Your task to perform on an android device: open app "Move to iOS" (install if not already installed) and go to login screen Image 0: 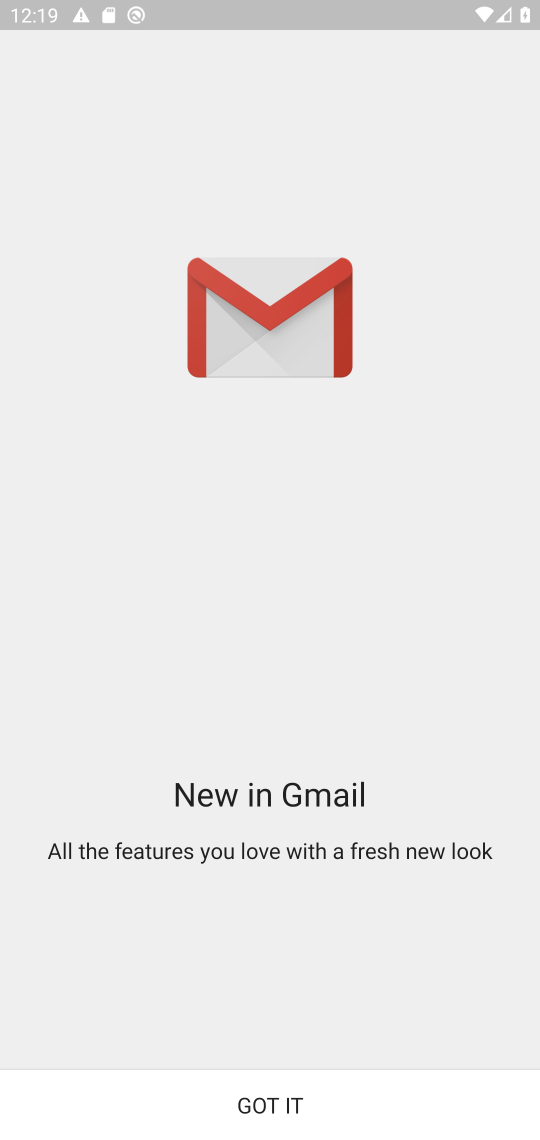
Step 0: press home button
Your task to perform on an android device: open app "Move to iOS" (install if not already installed) and go to login screen Image 1: 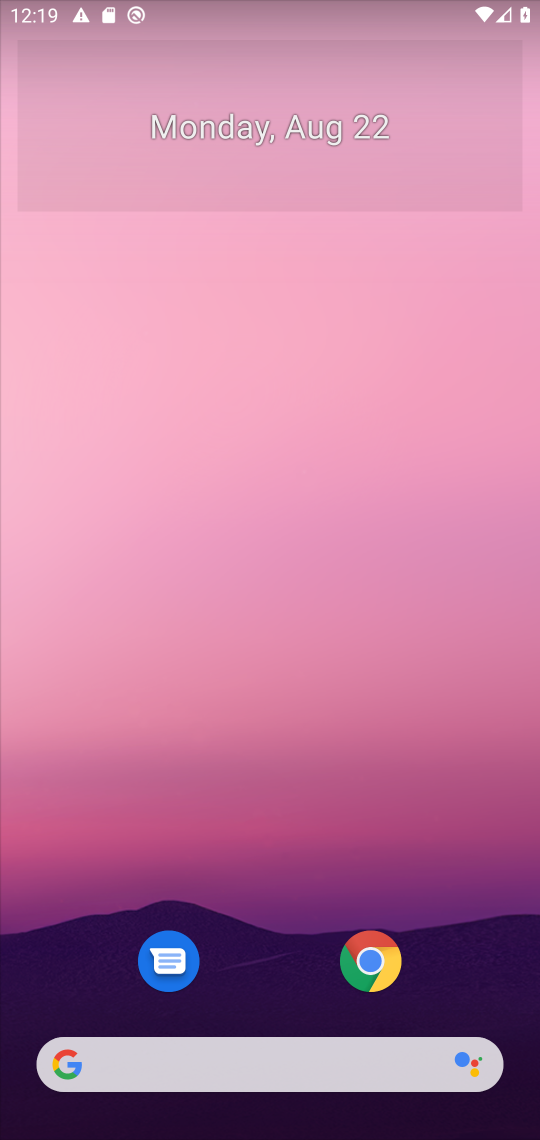
Step 1: drag from (496, 885) to (506, 96)
Your task to perform on an android device: open app "Move to iOS" (install if not already installed) and go to login screen Image 2: 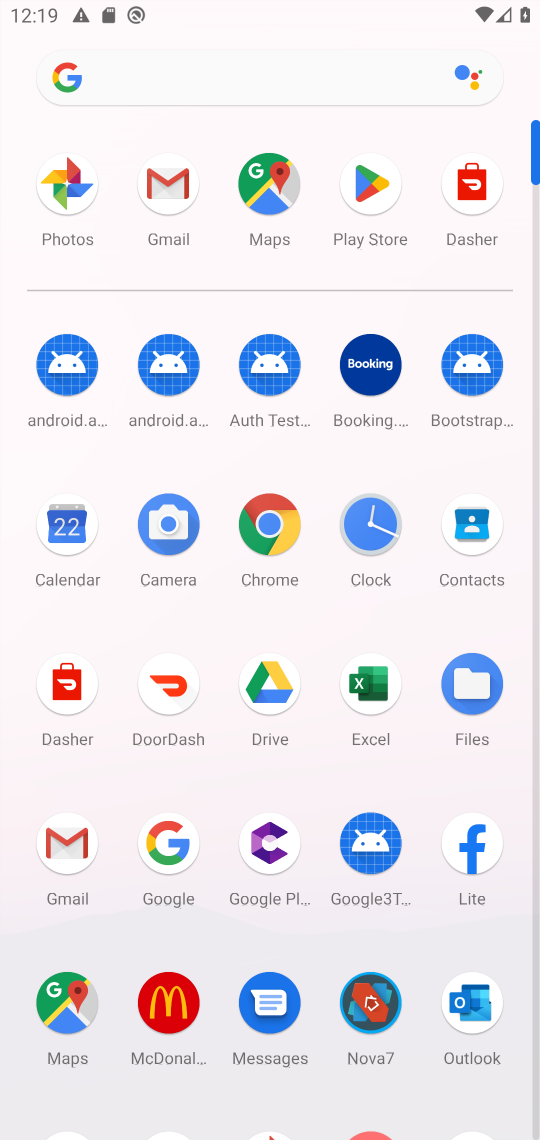
Step 2: click (369, 189)
Your task to perform on an android device: open app "Move to iOS" (install if not already installed) and go to login screen Image 3: 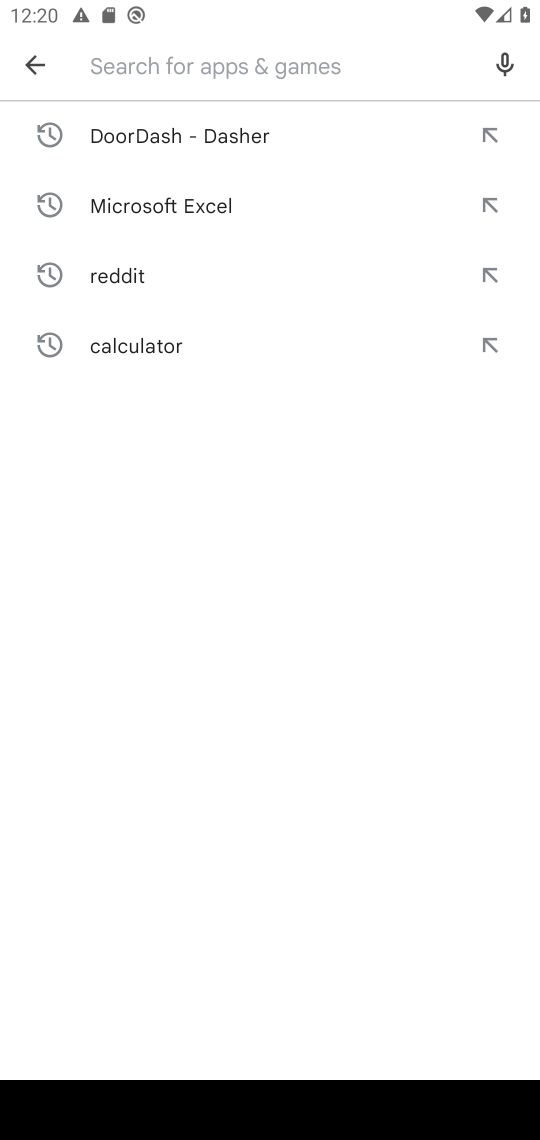
Step 3: type "Move to iOS"
Your task to perform on an android device: open app "Move to iOS" (install if not already installed) and go to login screen Image 4: 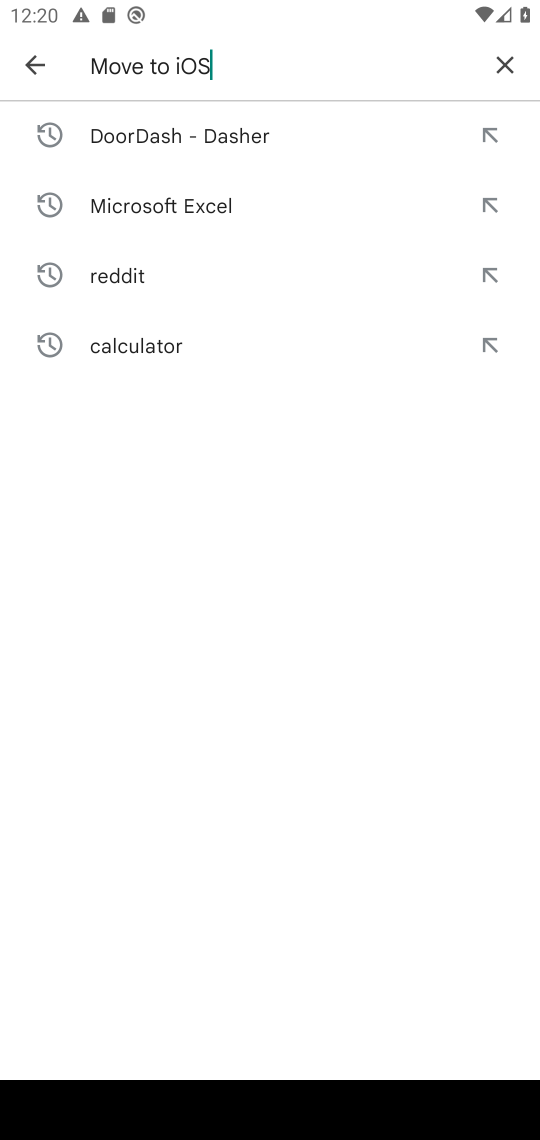
Step 4: press enter
Your task to perform on an android device: open app "Move to iOS" (install if not already installed) and go to login screen Image 5: 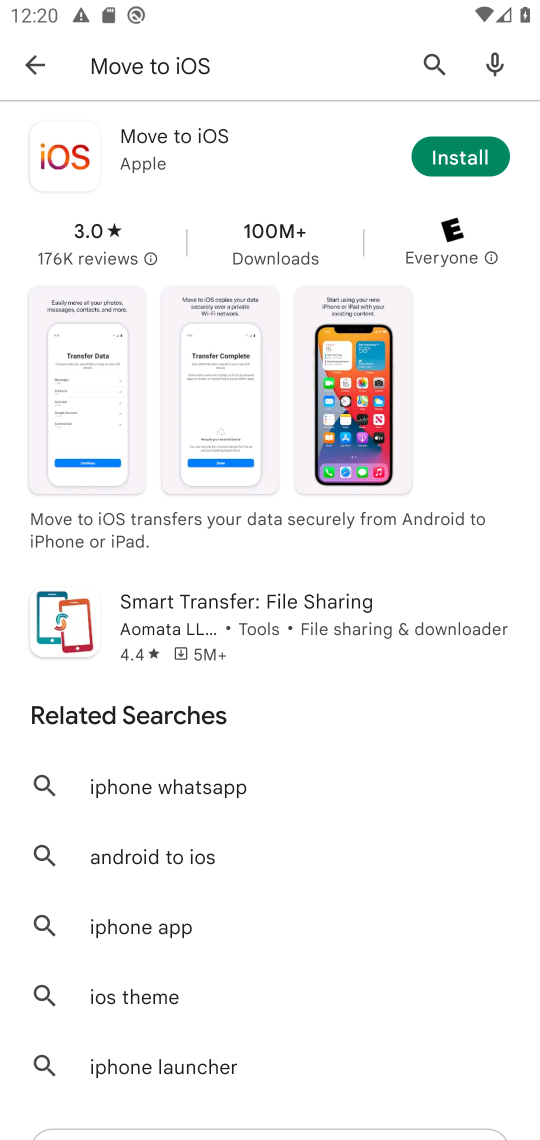
Step 5: click (454, 153)
Your task to perform on an android device: open app "Move to iOS" (install if not already installed) and go to login screen Image 6: 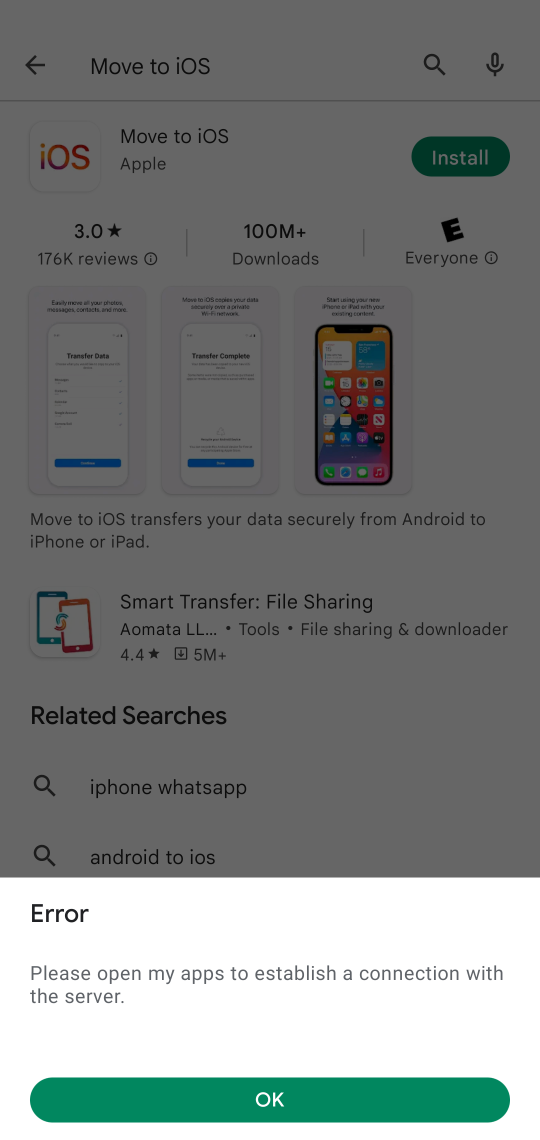
Step 6: task complete